Your task to perform on an android device: Show me the alarms in the clock app Image 0: 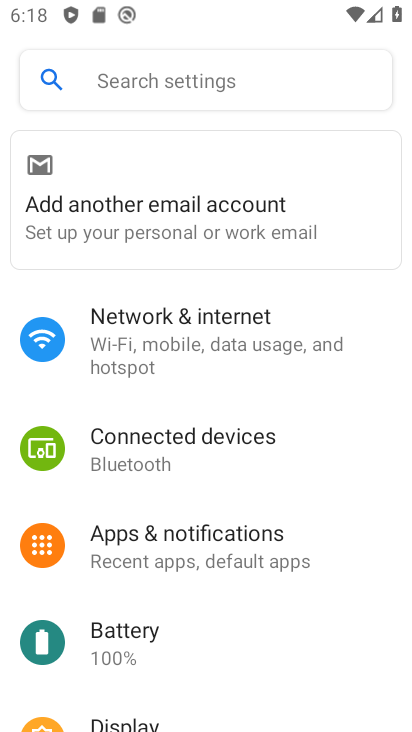
Step 0: press back button
Your task to perform on an android device: Show me the alarms in the clock app Image 1: 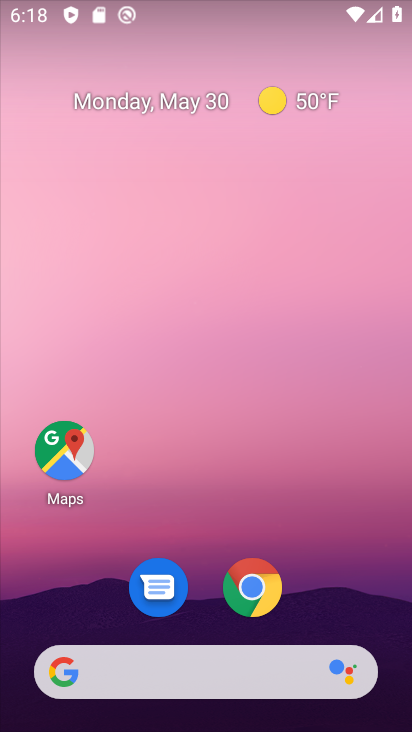
Step 1: drag from (307, 568) to (180, 29)
Your task to perform on an android device: Show me the alarms in the clock app Image 2: 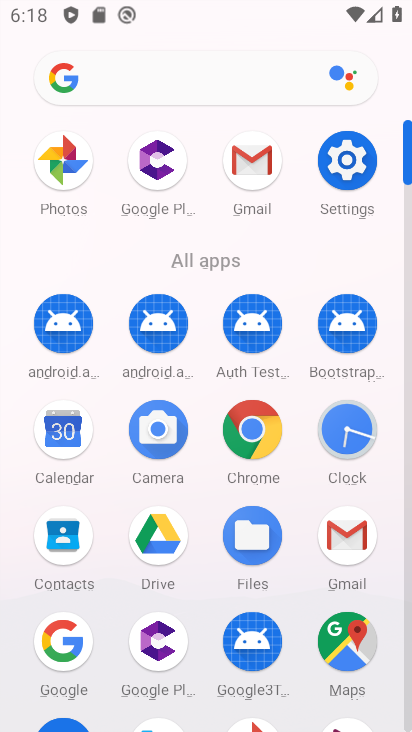
Step 2: drag from (0, 556) to (3, 228)
Your task to perform on an android device: Show me the alarms in the clock app Image 3: 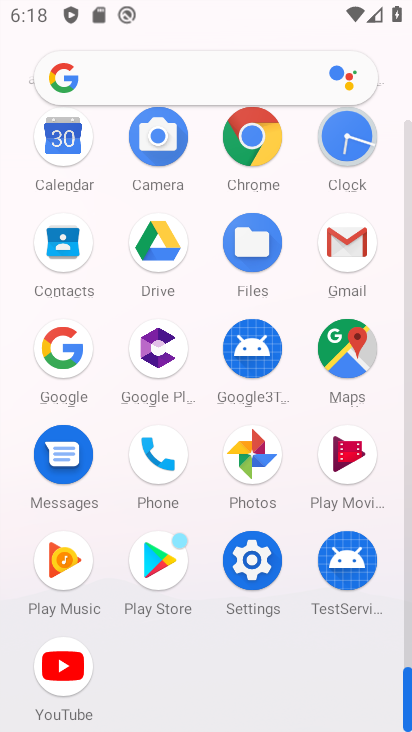
Step 3: drag from (3, 579) to (11, 221)
Your task to perform on an android device: Show me the alarms in the clock app Image 4: 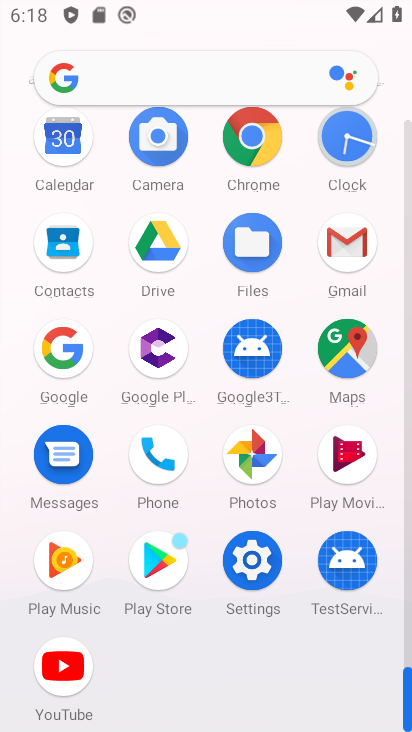
Step 4: click (350, 131)
Your task to perform on an android device: Show me the alarms in the clock app Image 5: 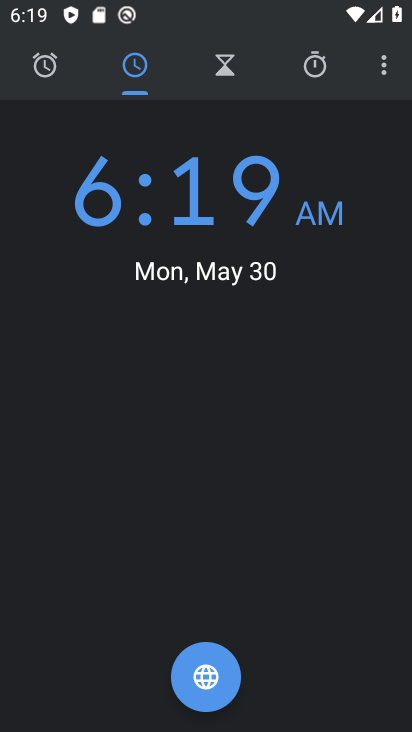
Step 5: click (57, 68)
Your task to perform on an android device: Show me the alarms in the clock app Image 6: 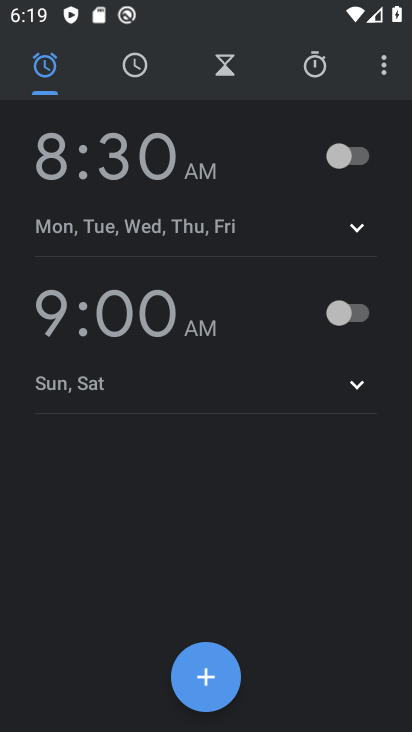
Step 6: click (378, 68)
Your task to perform on an android device: Show me the alarms in the clock app Image 7: 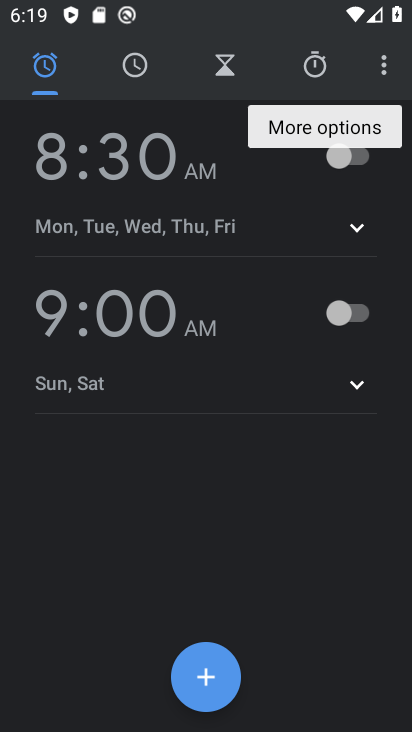
Step 7: click (245, 443)
Your task to perform on an android device: Show me the alarms in the clock app Image 8: 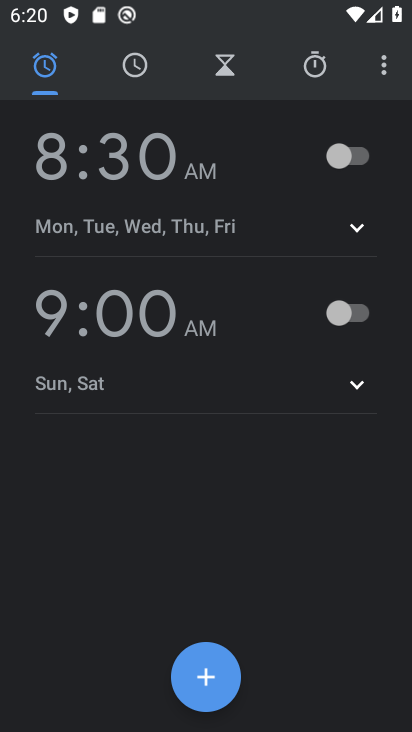
Step 8: task complete